Your task to perform on an android device: See recent photos Image 0: 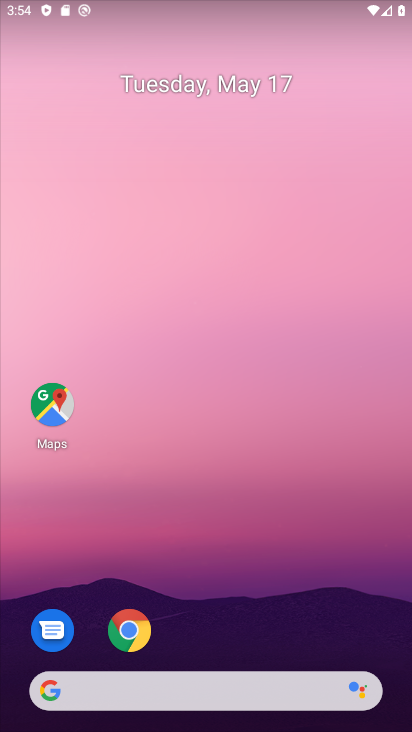
Step 0: drag from (198, 714) to (198, 138)
Your task to perform on an android device: See recent photos Image 1: 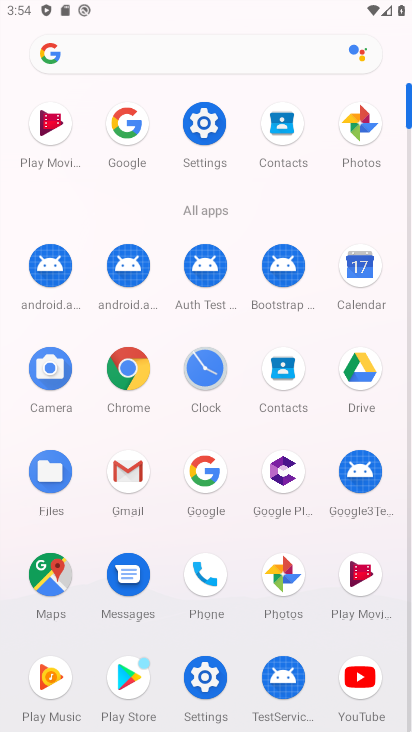
Step 1: click (281, 572)
Your task to perform on an android device: See recent photos Image 2: 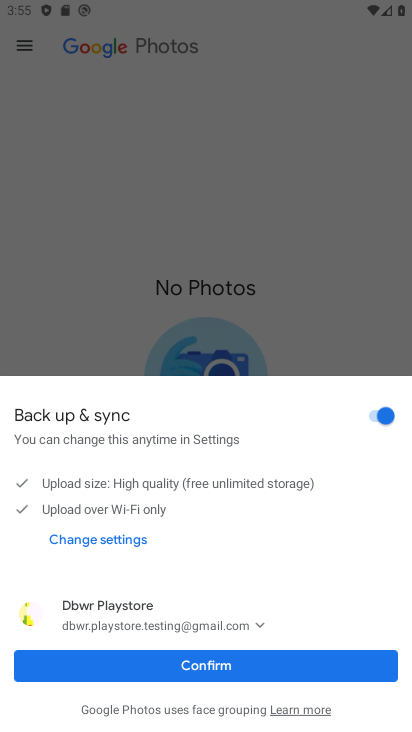
Step 2: click (199, 662)
Your task to perform on an android device: See recent photos Image 3: 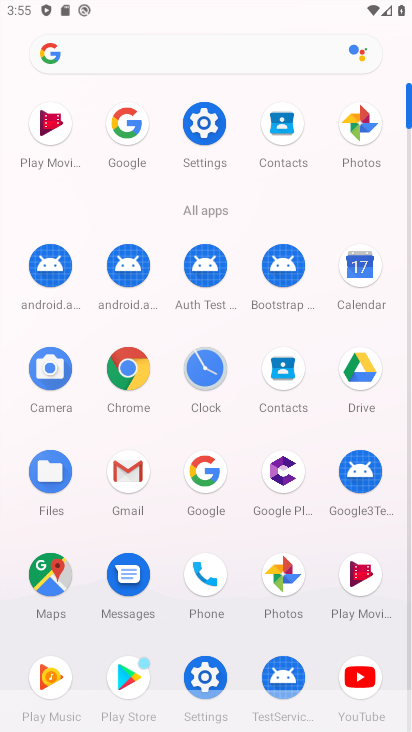
Step 3: click (288, 566)
Your task to perform on an android device: See recent photos Image 4: 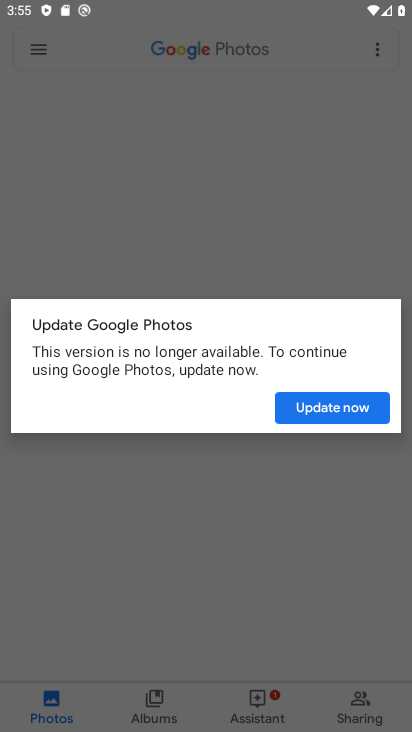
Step 4: task complete